Your task to perform on an android device: turn pop-ups off in chrome Image 0: 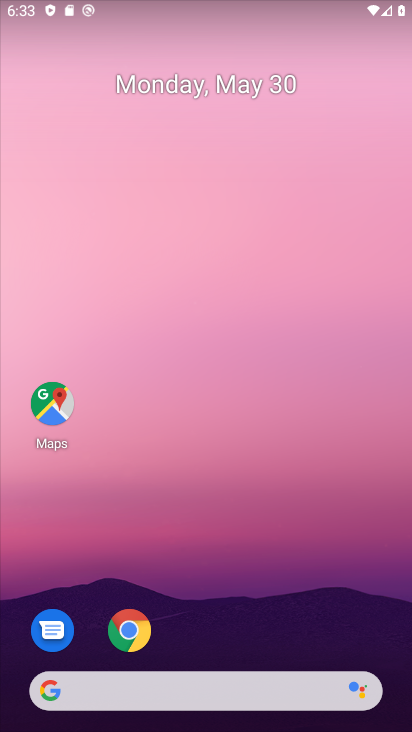
Step 0: drag from (368, 652) to (354, 68)
Your task to perform on an android device: turn pop-ups off in chrome Image 1: 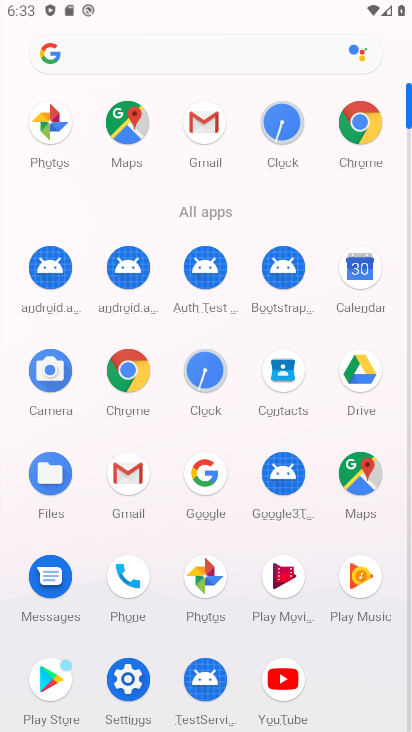
Step 1: click (373, 129)
Your task to perform on an android device: turn pop-ups off in chrome Image 2: 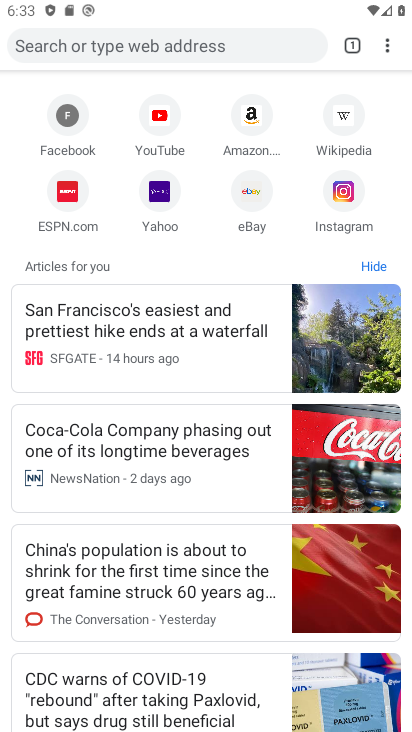
Step 2: click (396, 32)
Your task to perform on an android device: turn pop-ups off in chrome Image 3: 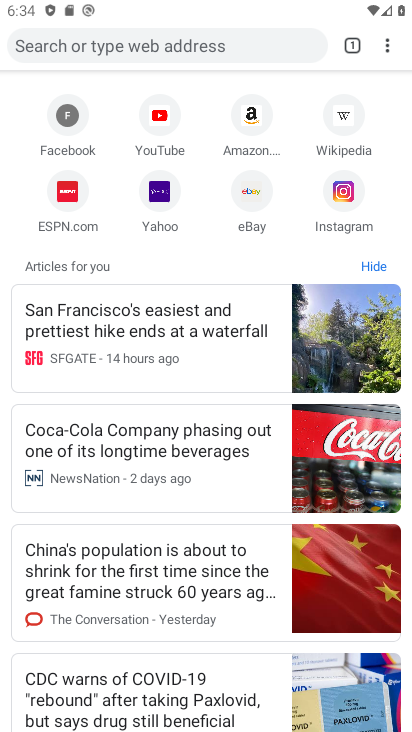
Step 3: click (391, 38)
Your task to perform on an android device: turn pop-ups off in chrome Image 4: 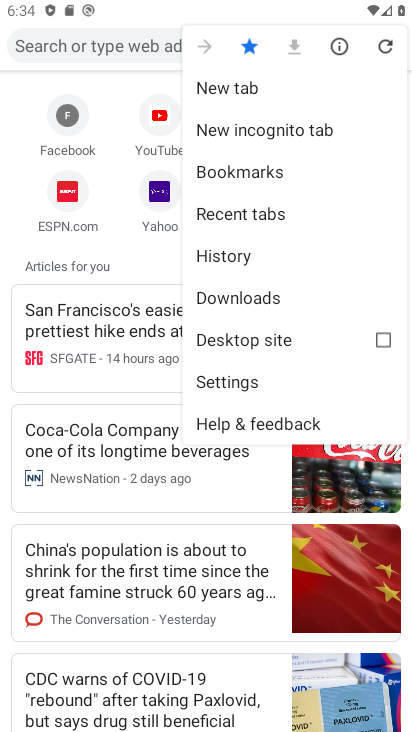
Step 4: click (255, 372)
Your task to perform on an android device: turn pop-ups off in chrome Image 5: 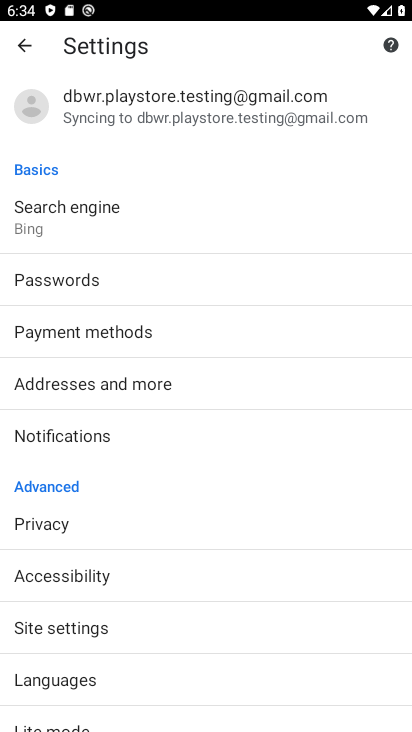
Step 5: click (145, 638)
Your task to perform on an android device: turn pop-ups off in chrome Image 6: 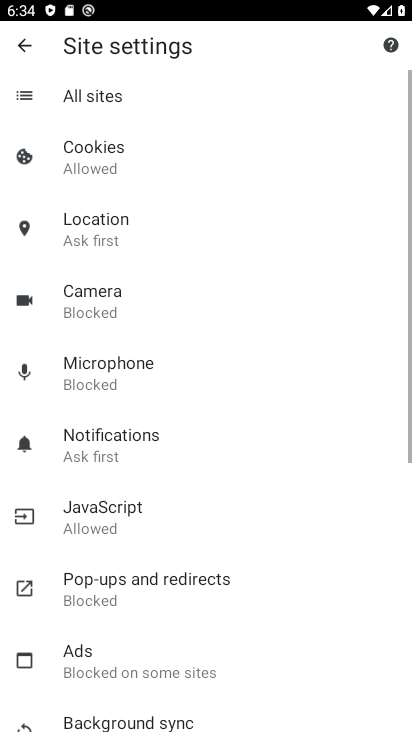
Step 6: click (149, 597)
Your task to perform on an android device: turn pop-ups off in chrome Image 7: 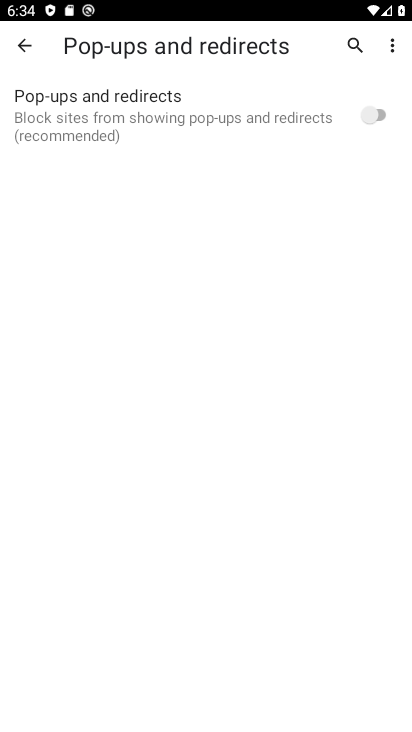
Step 7: task complete